Your task to perform on an android device: open app "Instagram" Image 0: 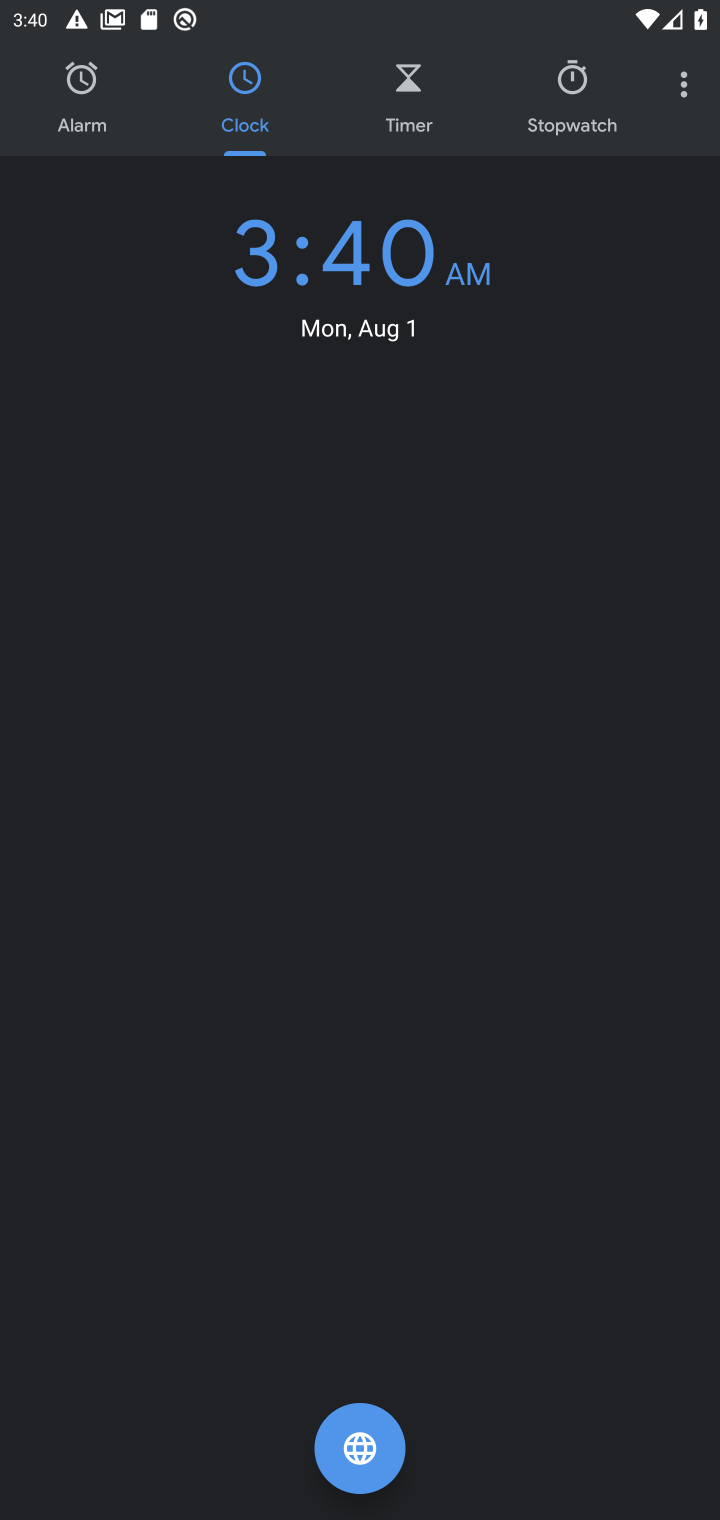
Step 0: press home button
Your task to perform on an android device: open app "Instagram" Image 1: 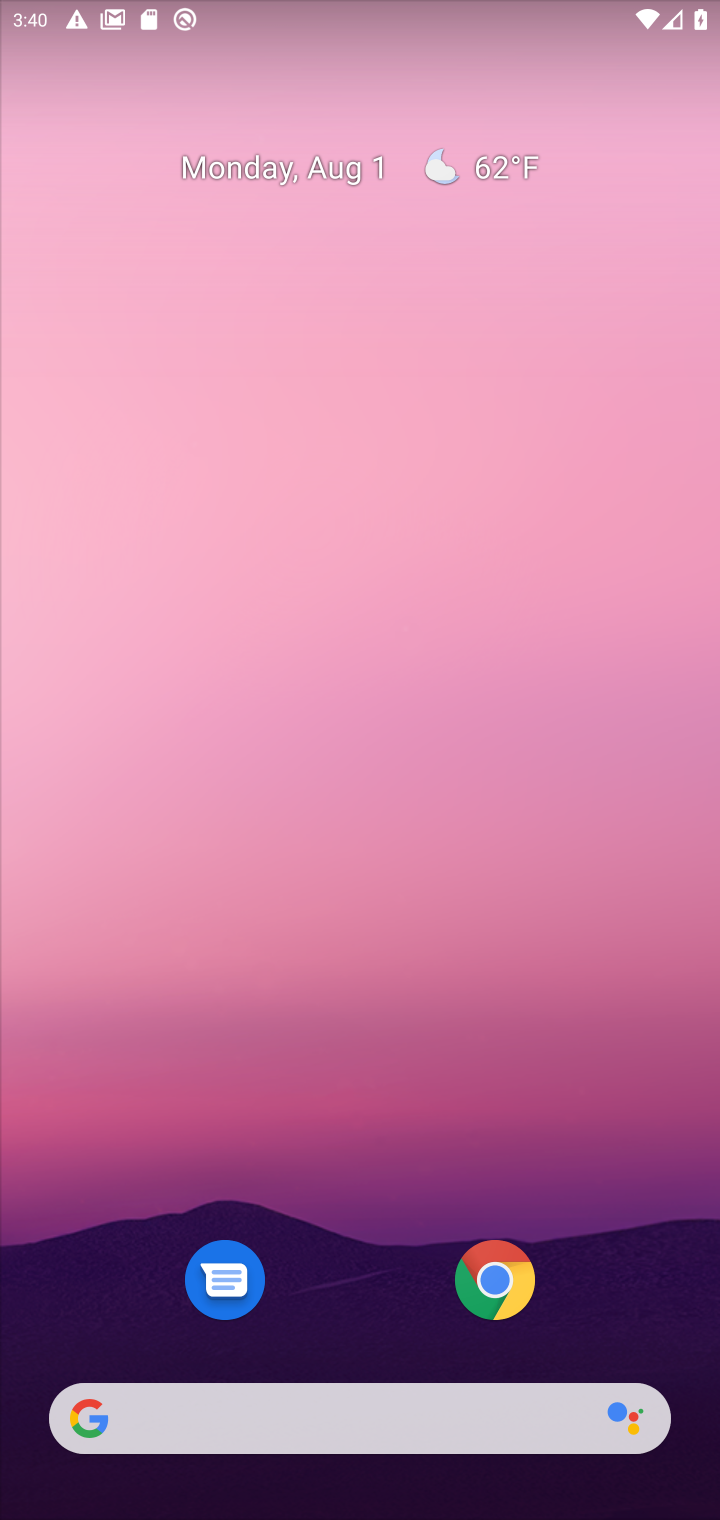
Step 1: drag from (291, 1374) to (347, 46)
Your task to perform on an android device: open app "Instagram" Image 2: 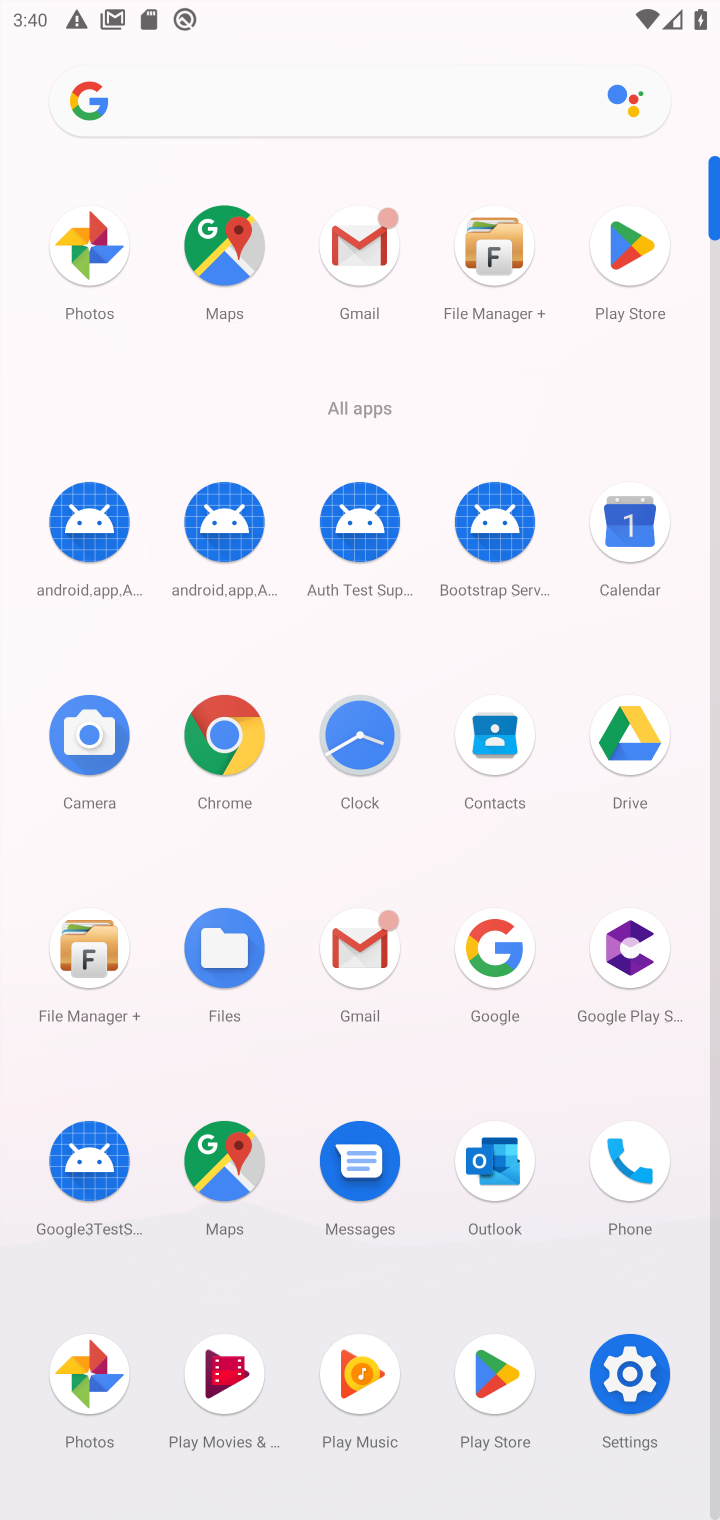
Step 2: click (631, 246)
Your task to perform on an android device: open app "Instagram" Image 3: 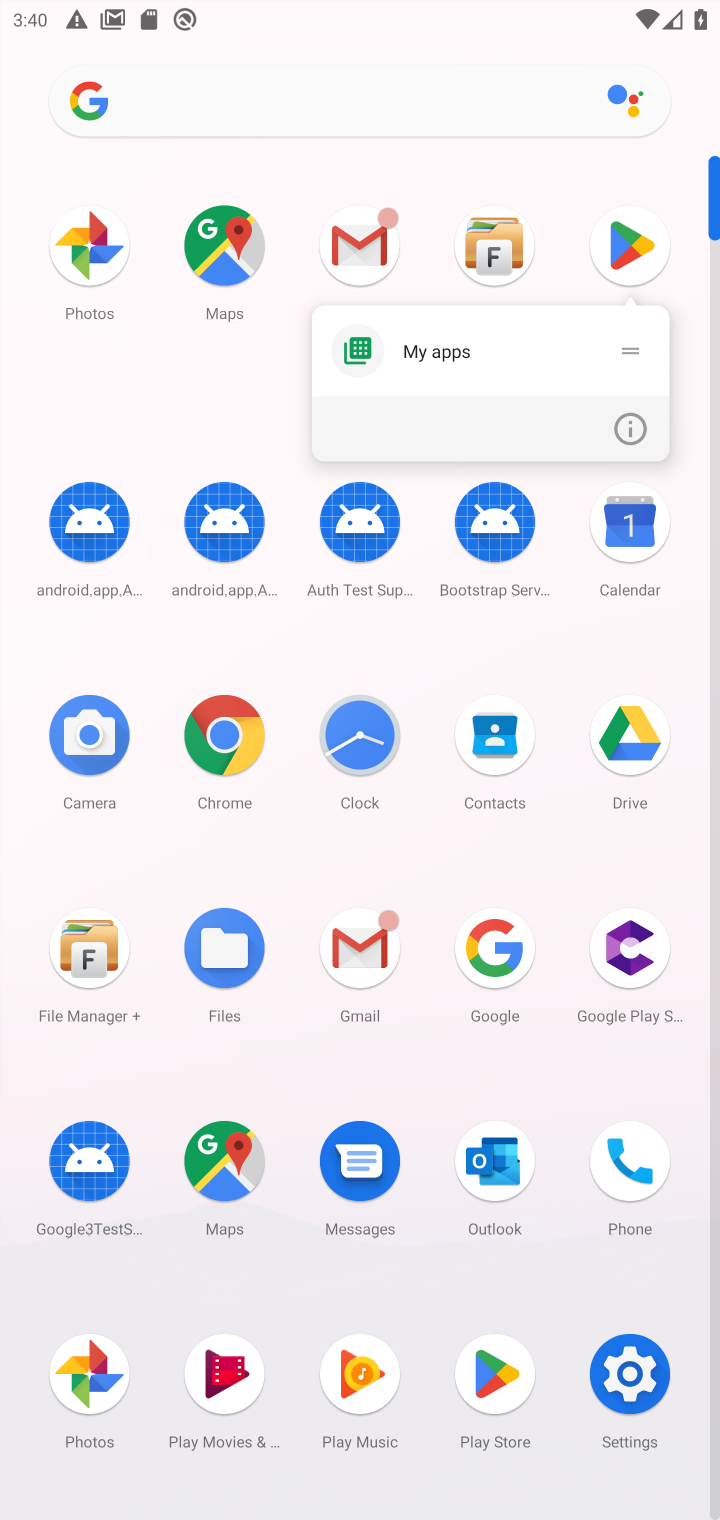
Step 3: click (631, 246)
Your task to perform on an android device: open app "Instagram" Image 4: 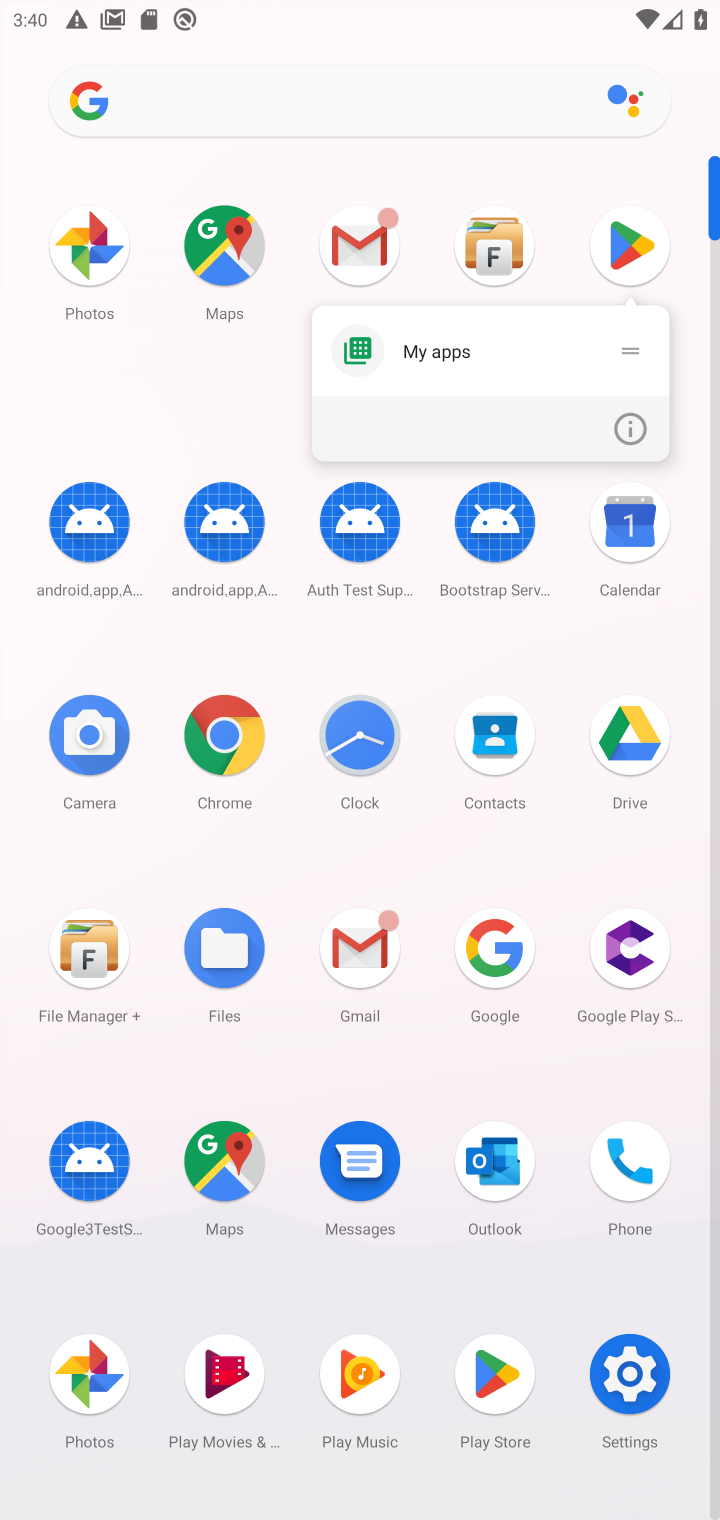
Step 4: click (631, 246)
Your task to perform on an android device: open app "Instagram" Image 5: 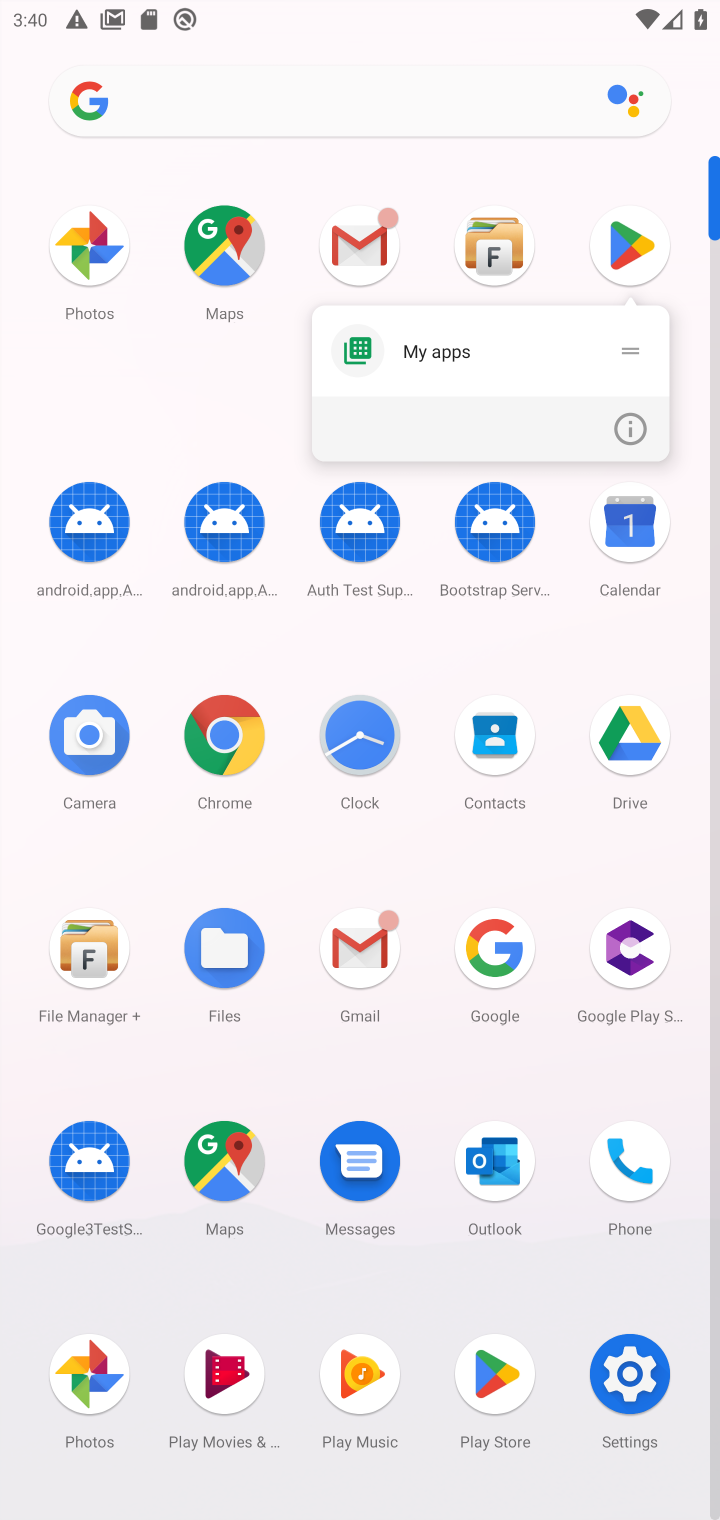
Step 5: click (634, 236)
Your task to perform on an android device: open app "Instagram" Image 6: 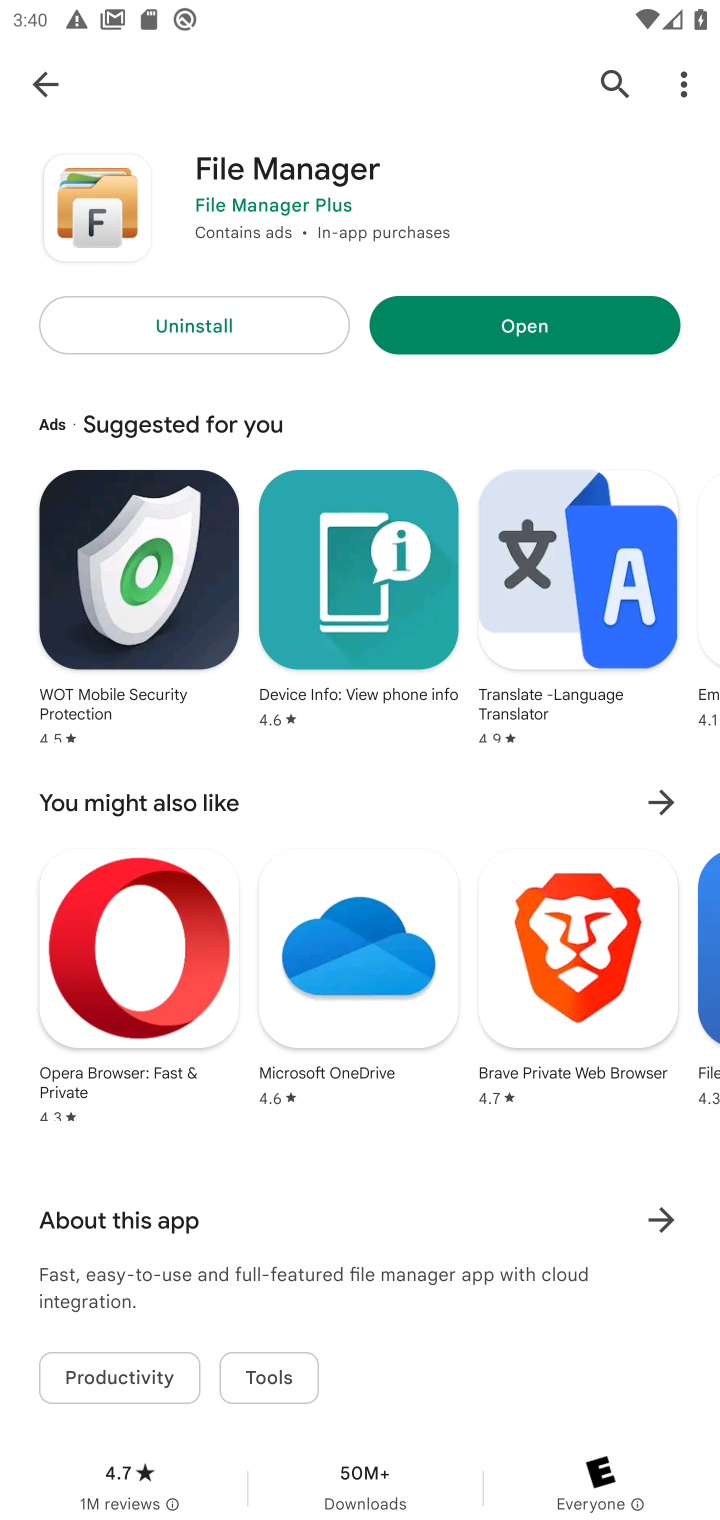
Step 6: click (609, 80)
Your task to perform on an android device: open app "Instagram" Image 7: 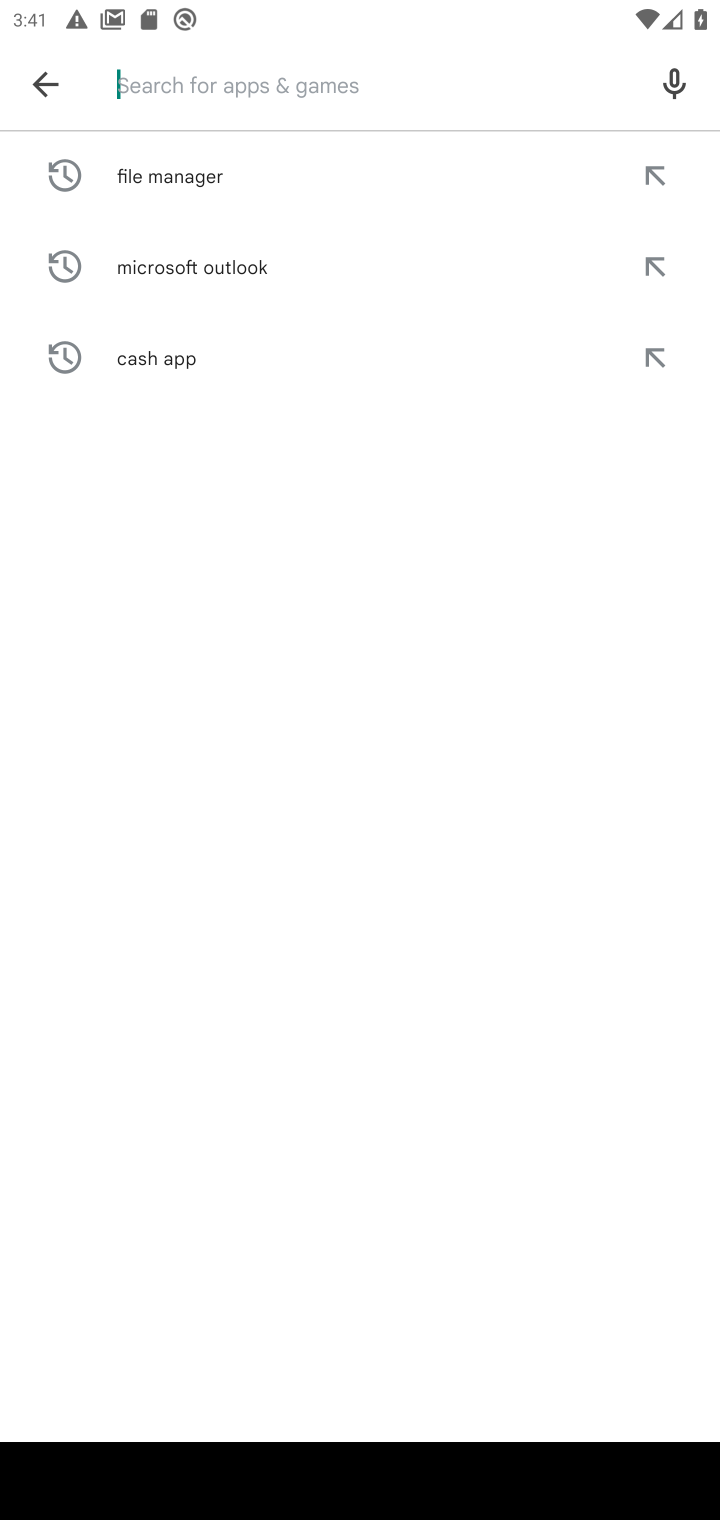
Step 7: type "Instagram"
Your task to perform on an android device: open app "Instagram" Image 8: 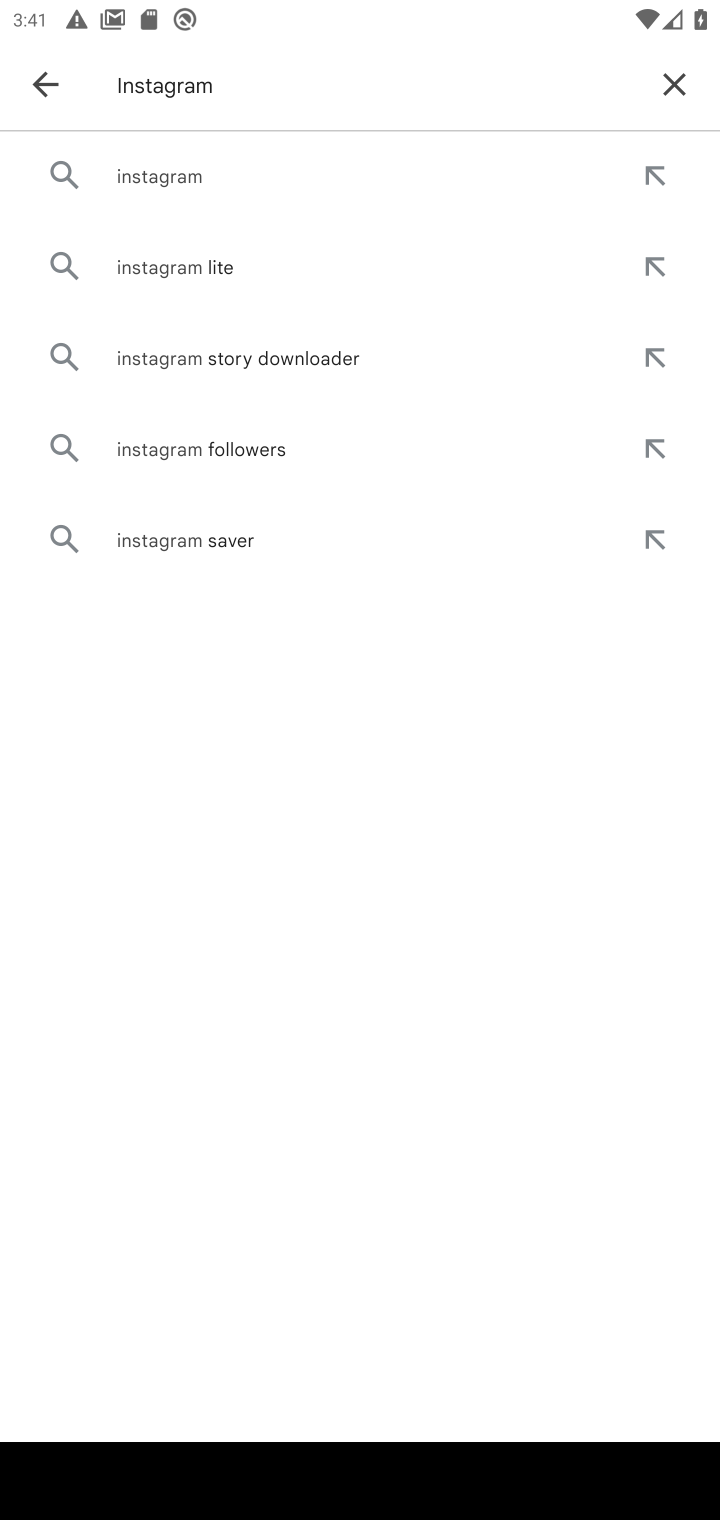
Step 8: click (161, 177)
Your task to perform on an android device: open app "Instagram" Image 9: 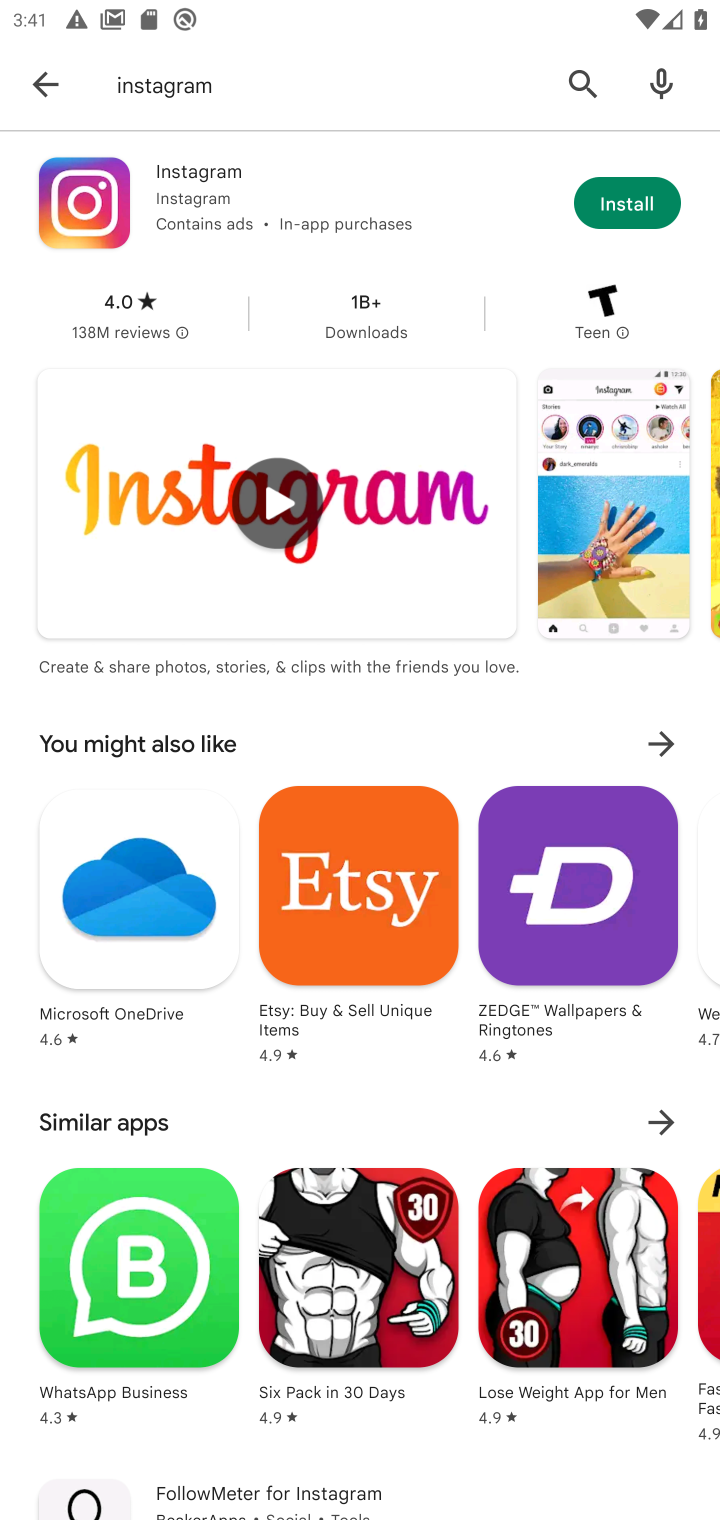
Step 9: task complete